Your task to perform on an android device: turn on improve location accuracy Image 0: 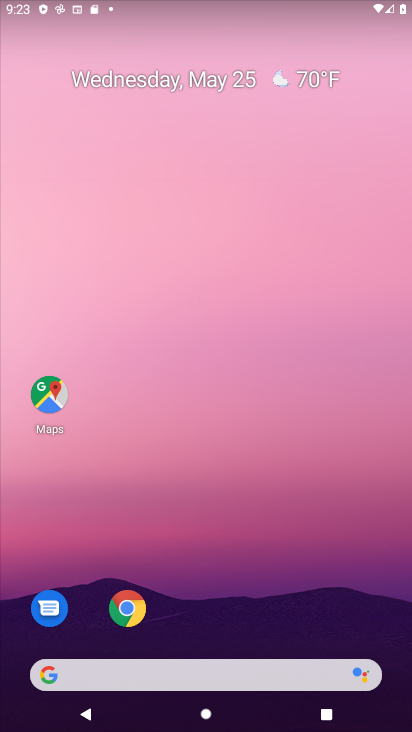
Step 0: drag from (275, 541) to (168, 48)
Your task to perform on an android device: turn on improve location accuracy Image 1: 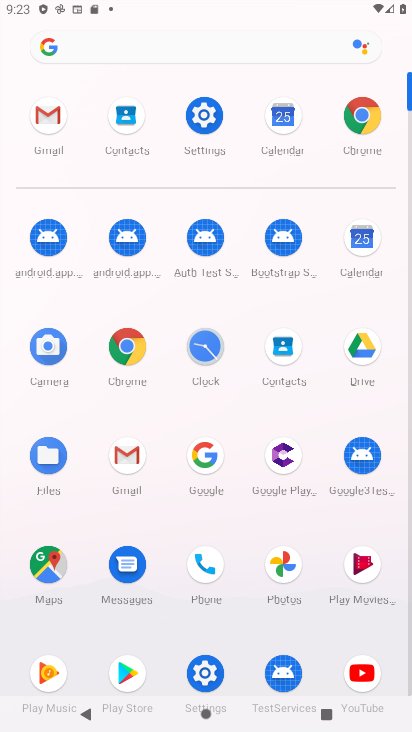
Step 1: click (200, 117)
Your task to perform on an android device: turn on improve location accuracy Image 2: 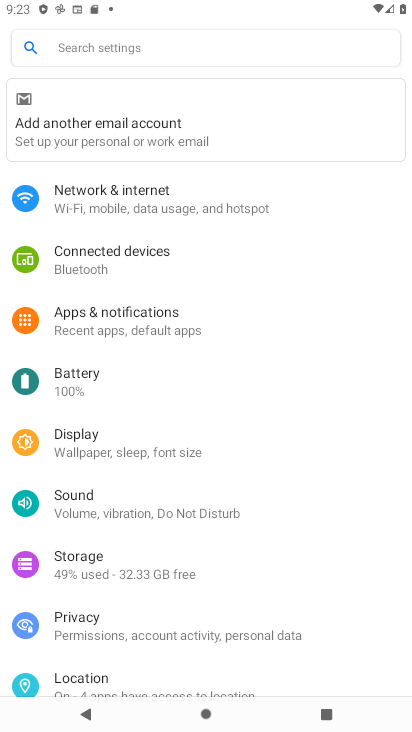
Step 2: click (151, 682)
Your task to perform on an android device: turn on improve location accuracy Image 3: 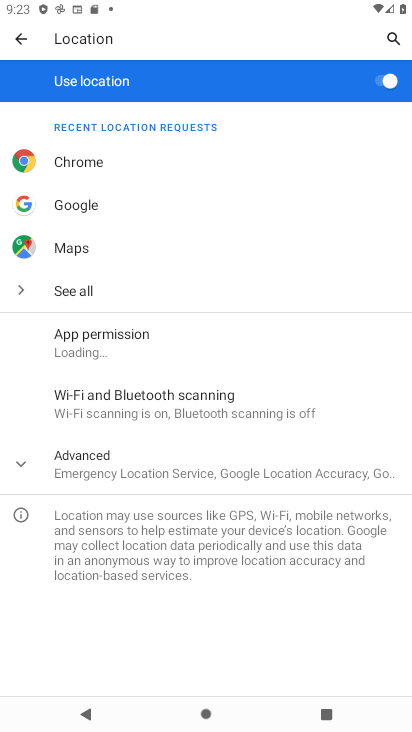
Step 3: click (160, 461)
Your task to perform on an android device: turn on improve location accuracy Image 4: 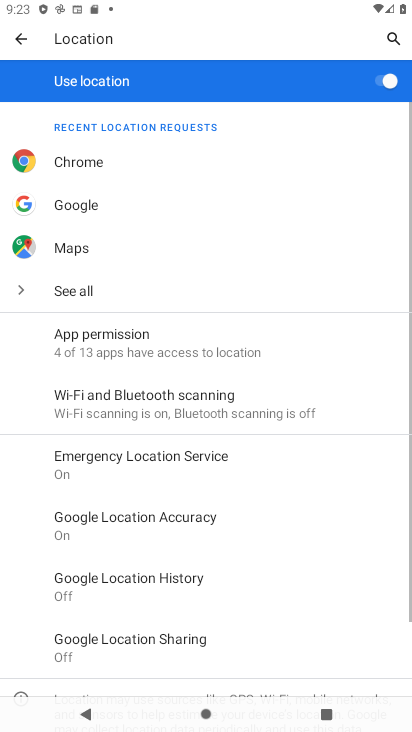
Step 4: click (169, 524)
Your task to perform on an android device: turn on improve location accuracy Image 5: 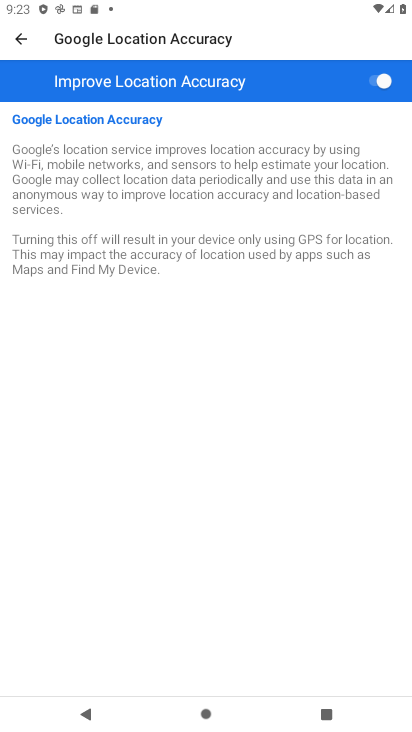
Step 5: task complete